Your task to perform on an android device: Is it going to rain tomorrow? Image 0: 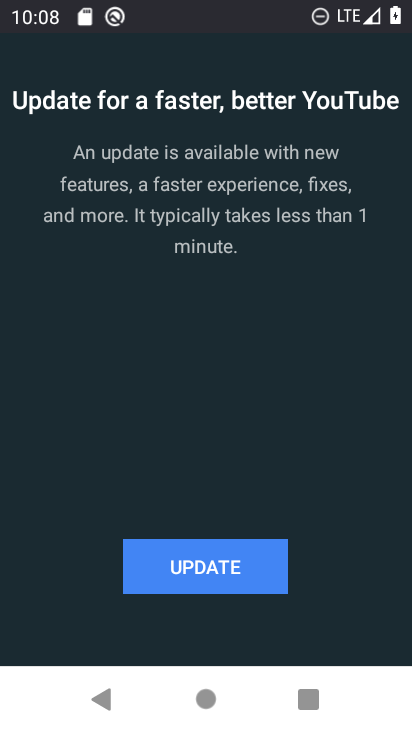
Step 0: click (247, 570)
Your task to perform on an android device: Is it going to rain tomorrow? Image 1: 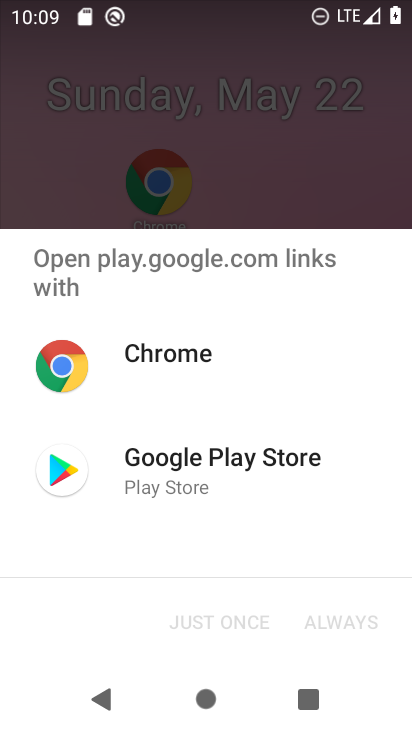
Step 1: press home button
Your task to perform on an android device: Is it going to rain tomorrow? Image 2: 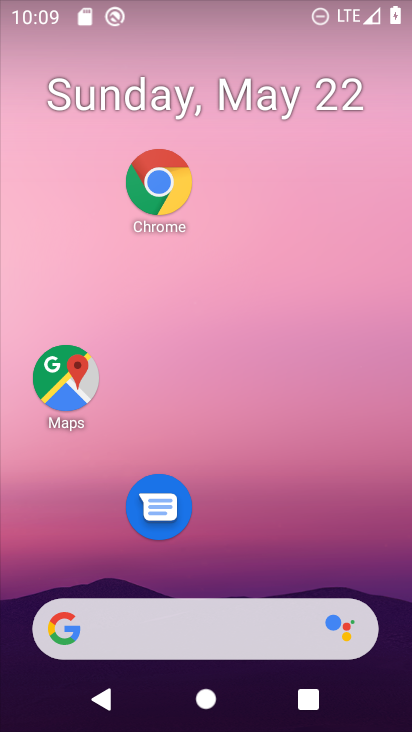
Step 2: click (271, 636)
Your task to perform on an android device: Is it going to rain tomorrow? Image 3: 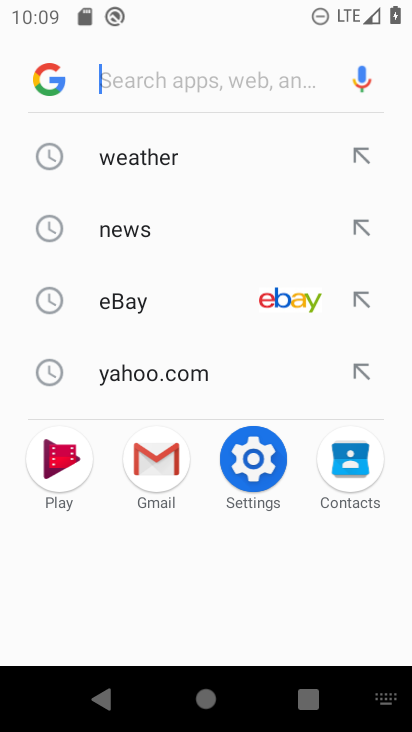
Step 3: type "Is it going to rain tomorrow?"
Your task to perform on an android device: Is it going to rain tomorrow? Image 4: 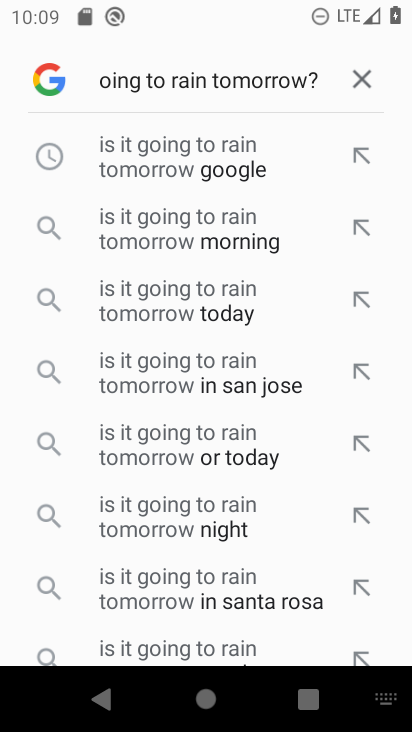
Step 4: click (229, 164)
Your task to perform on an android device: Is it going to rain tomorrow? Image 5: 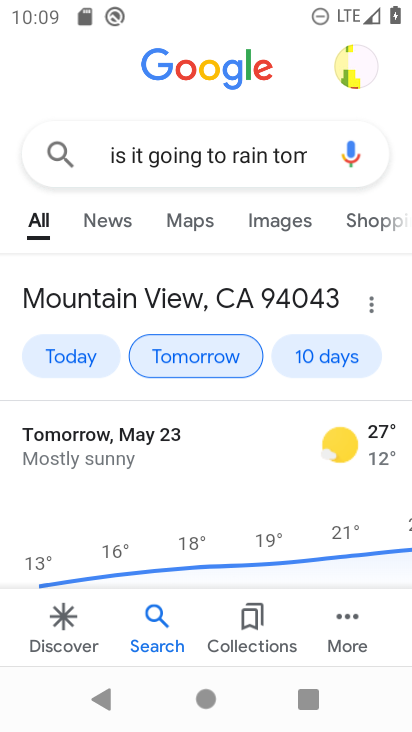
Step 5: task complete